Your task to perform on an android device: add a contact Image 0: 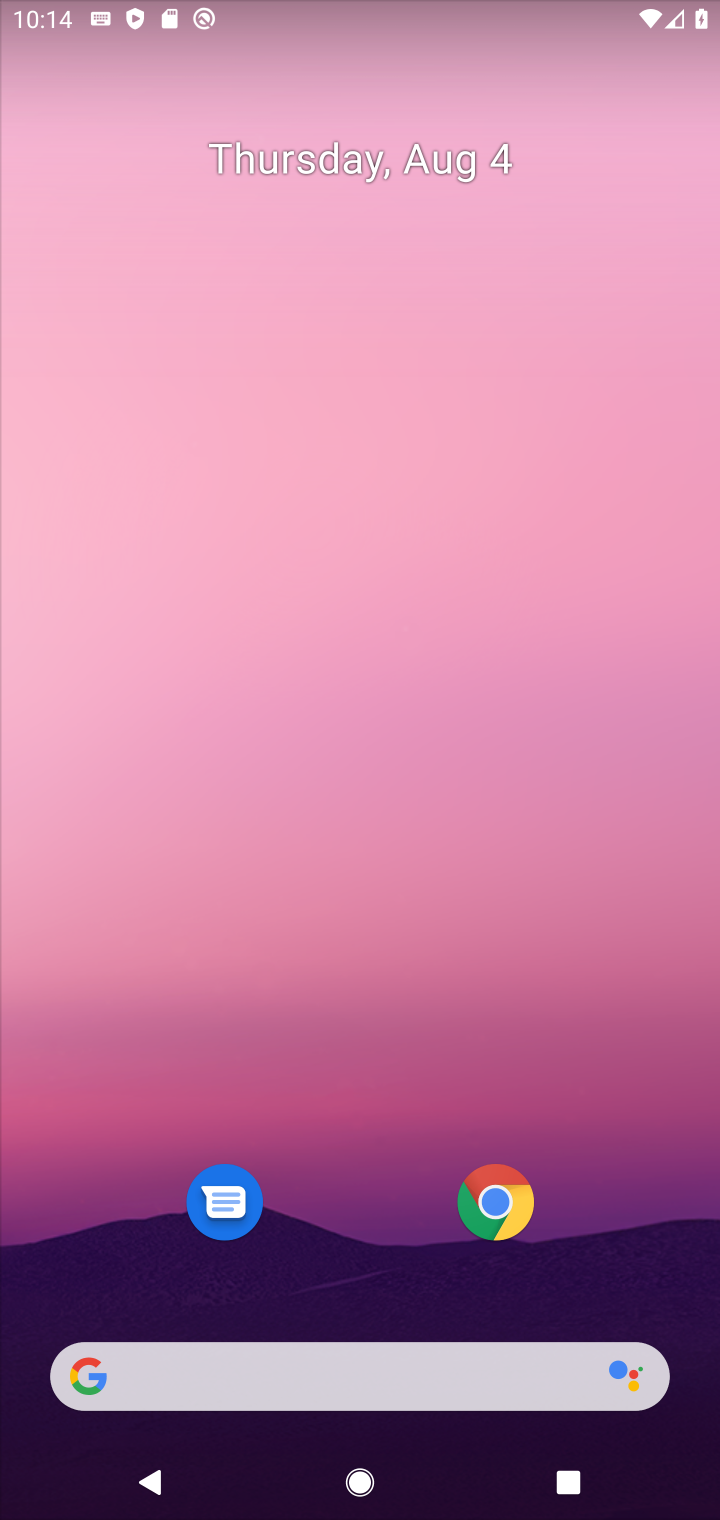
Step 0: press back button
Your task to perform on an android device: add a contact Image 1: 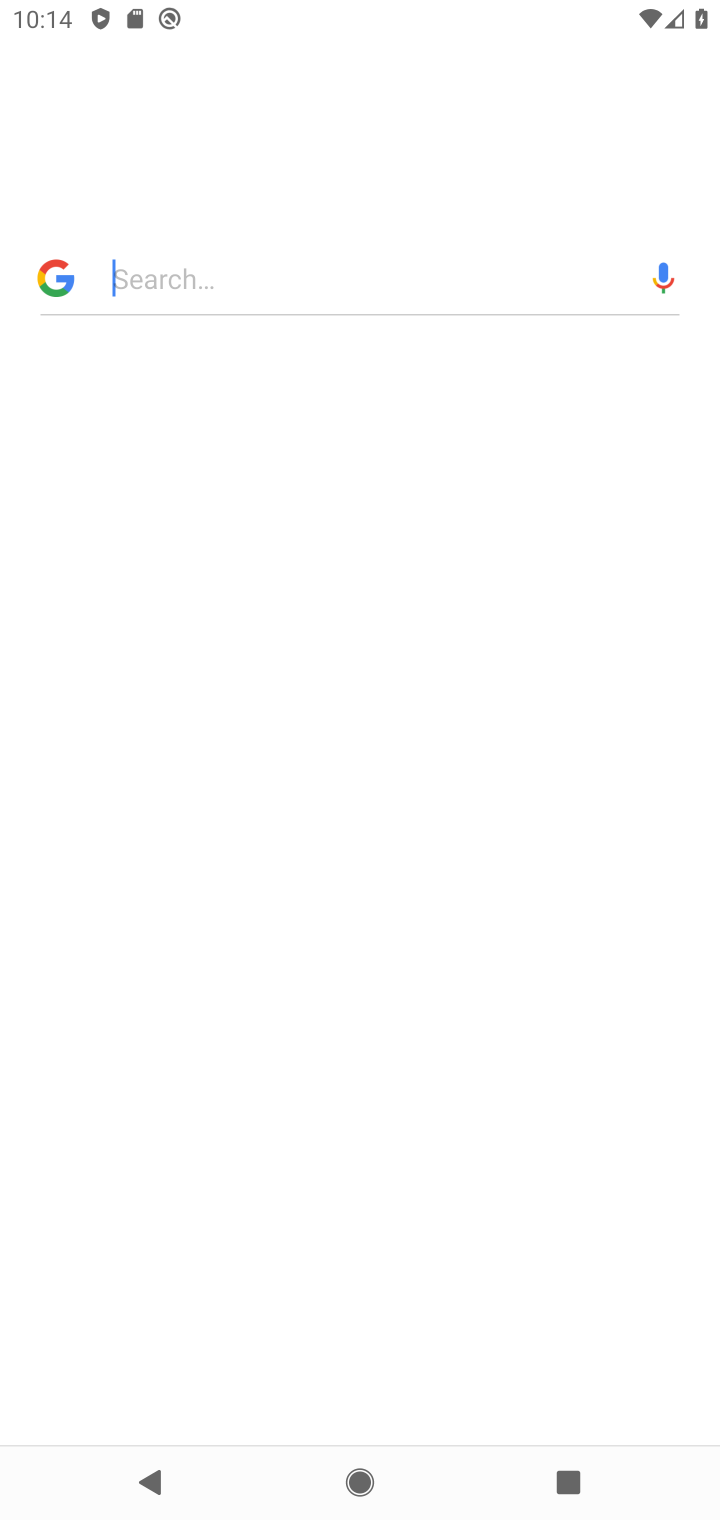
Step 1: click (535, 27)
Your task to perform on an android device: add a contact Image 2: 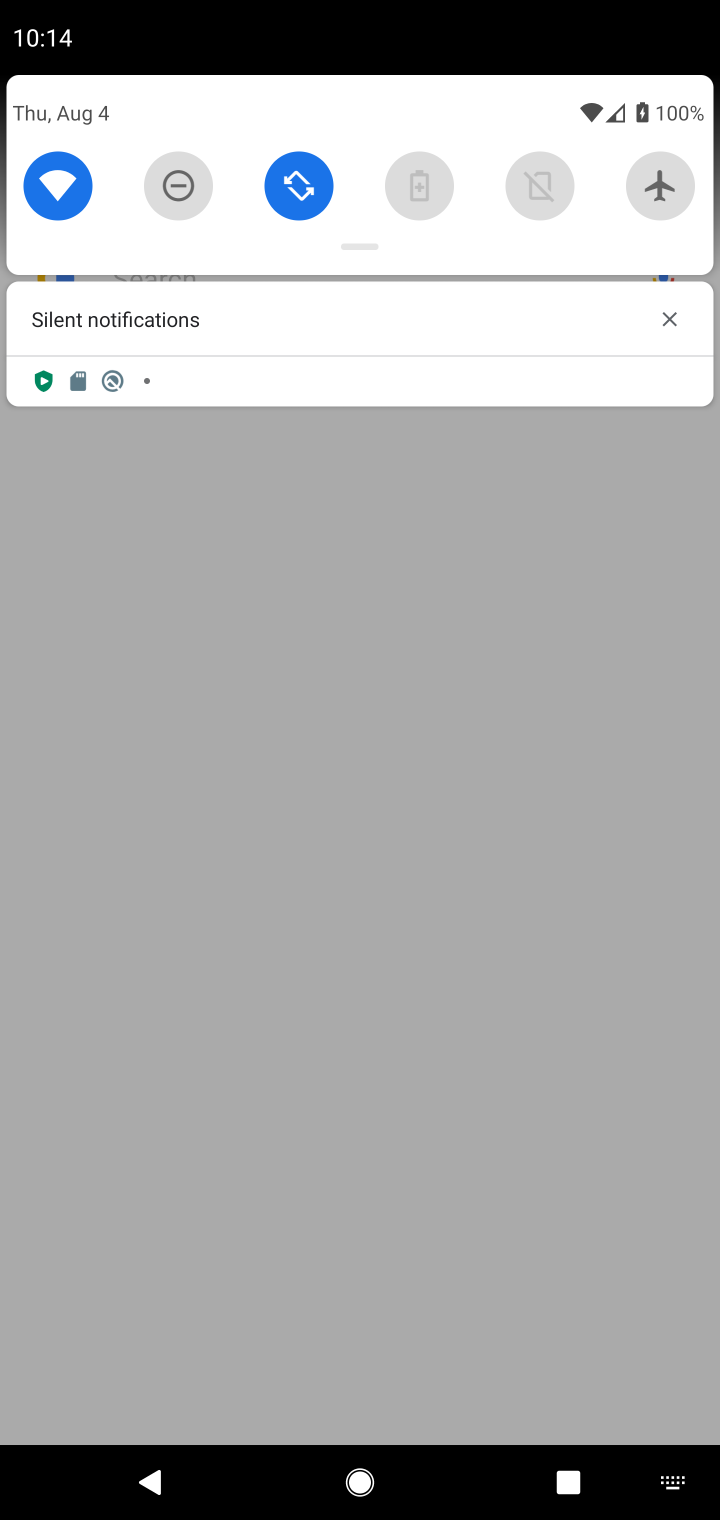
Step 2: press back button
Your task to perform on an android device: add a contact Image 3: 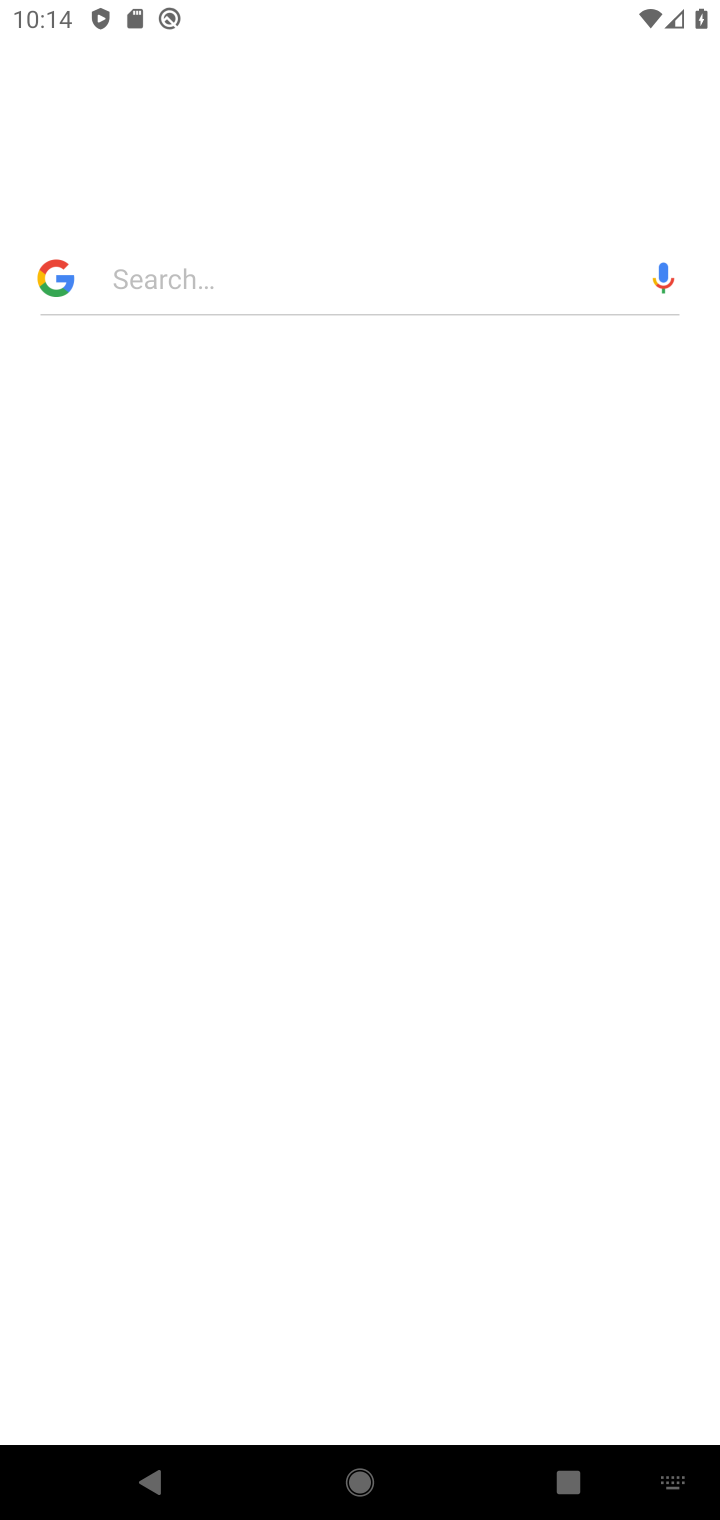
Step 3: press back button
Your task to perform on an android device: add a contact Image 4: 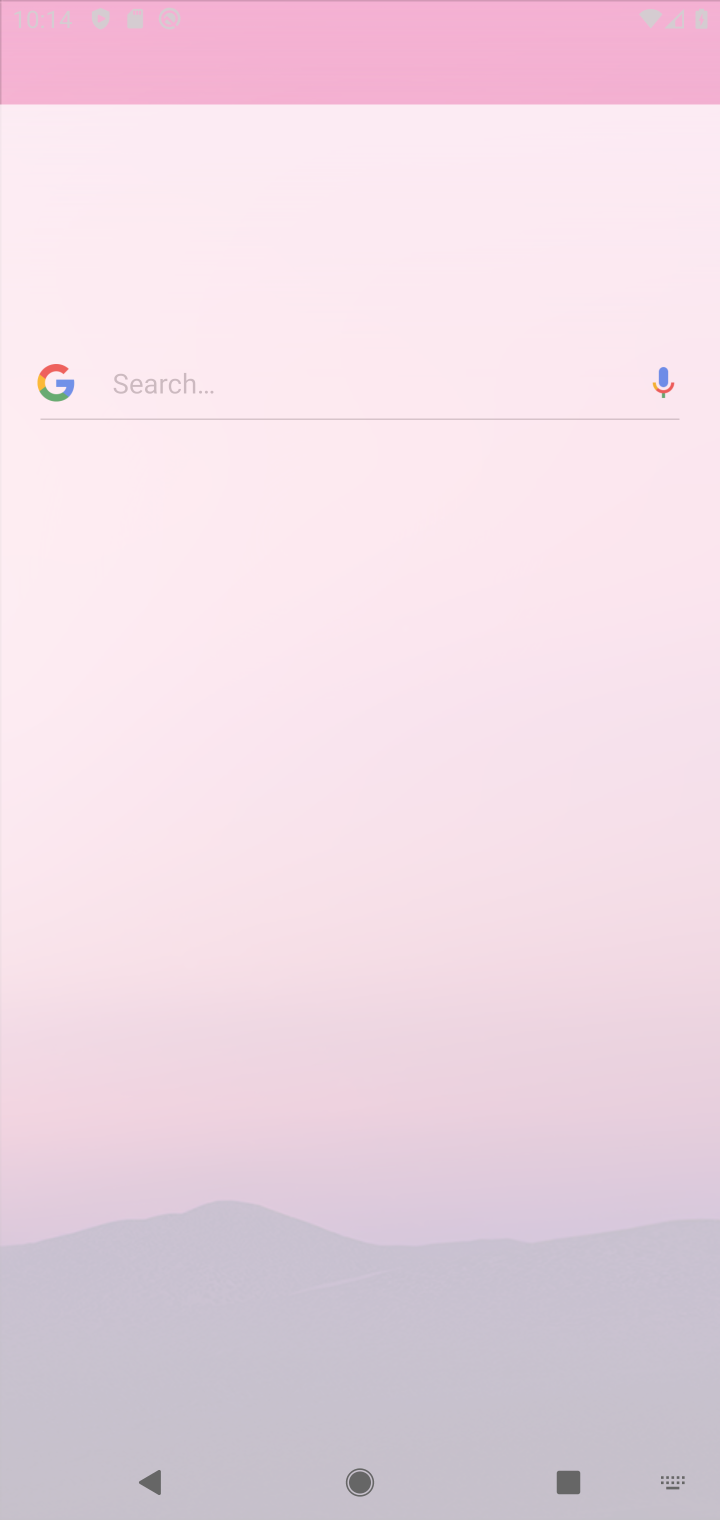
Step 4: press home button
Your task to perform on an android device: add a contact Image 5: 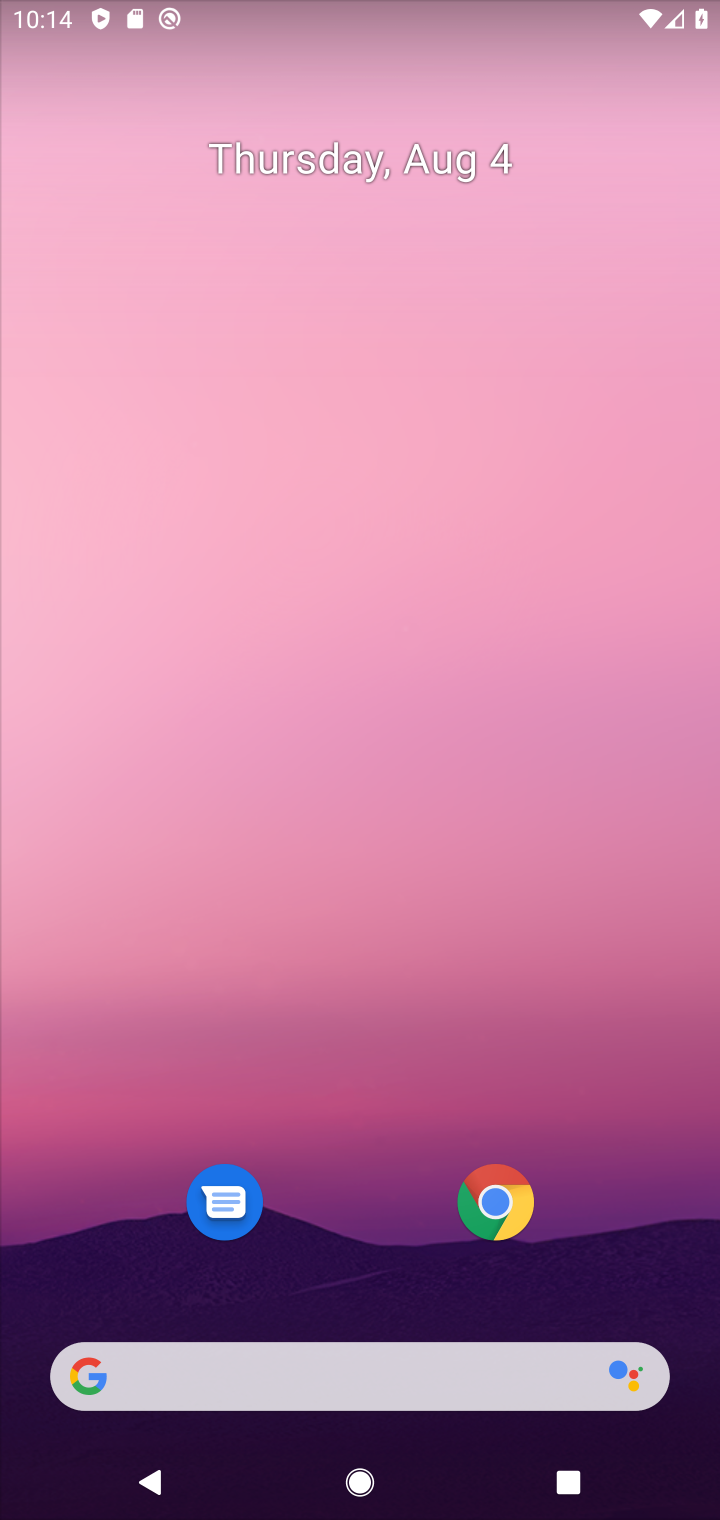
Step 5: click (547, 30)
Your task to perform on an android device: add a contact Image 6: 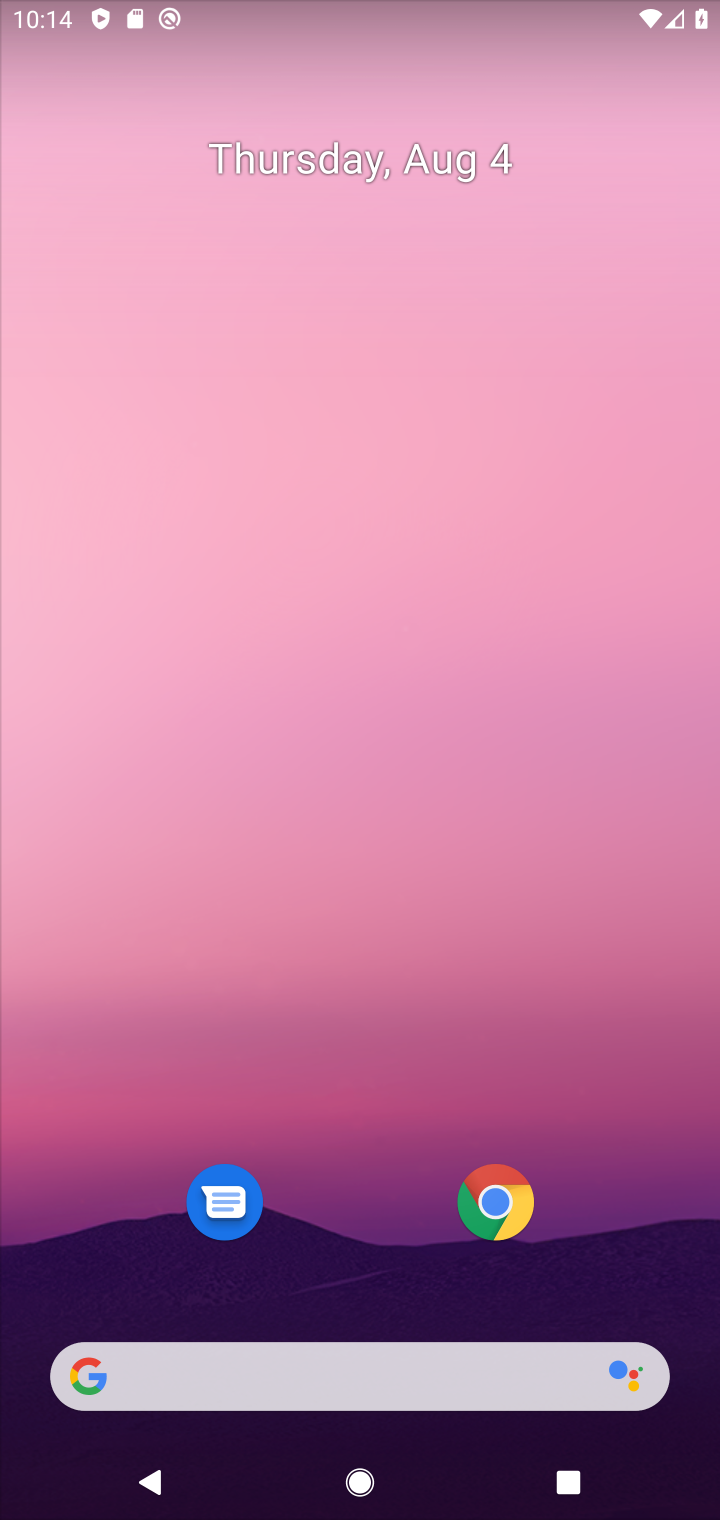
Step 6: drag from (424, 1113) to (566, 60)
Your task to perform on an android device: add a contact Image 7: 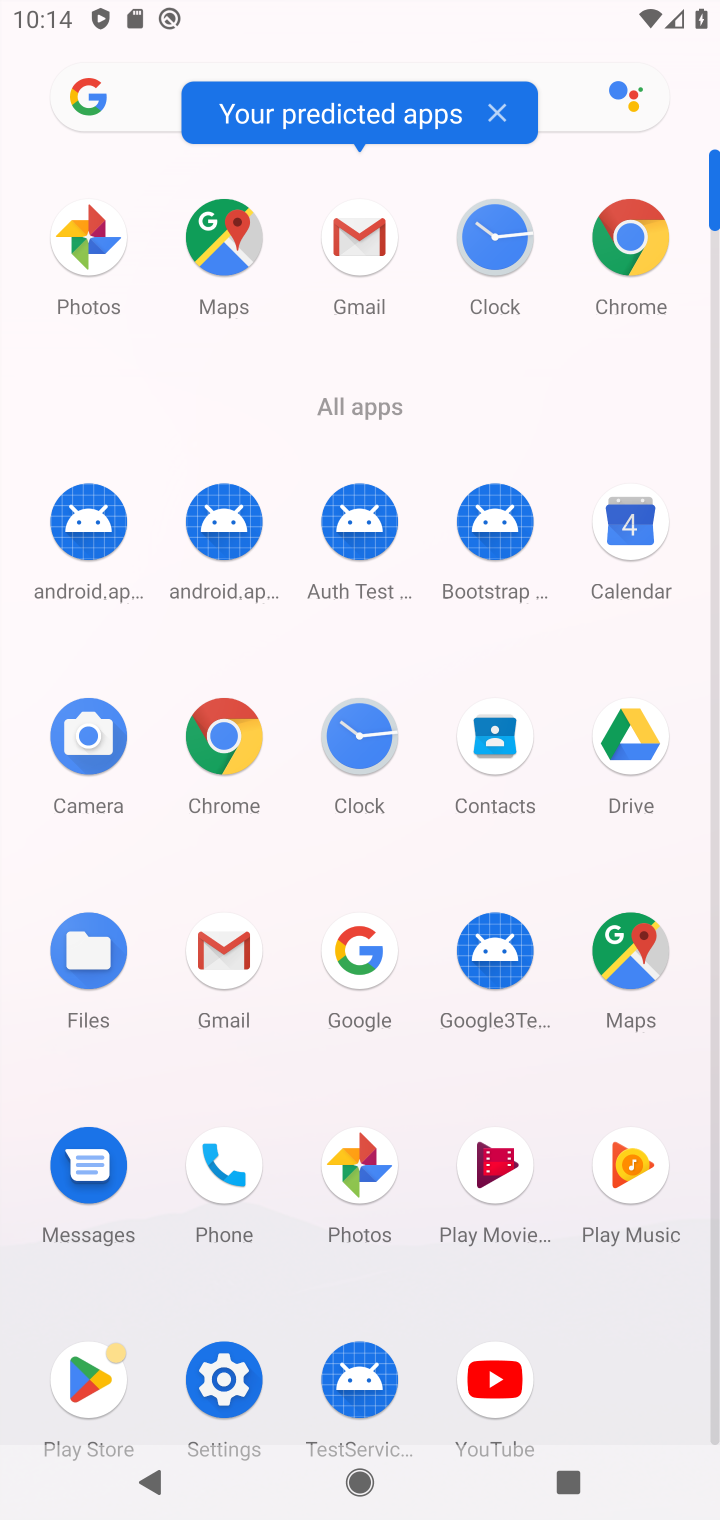
Step 7: click (496, 724)
Your task to perform on an android device: add a contact Image 8: 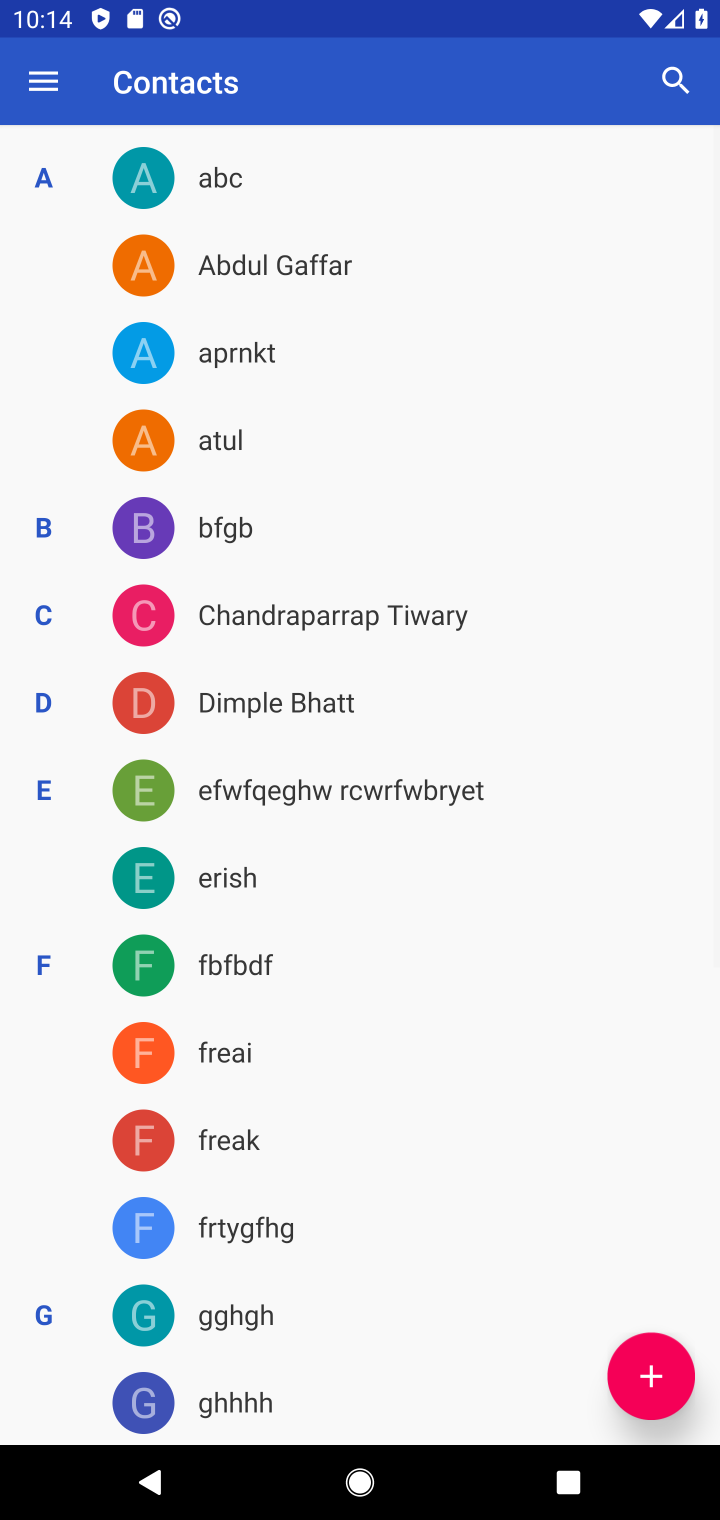
Step 8: click (652, 1384)
Your task to perform on an android device: add a contact Image 9: 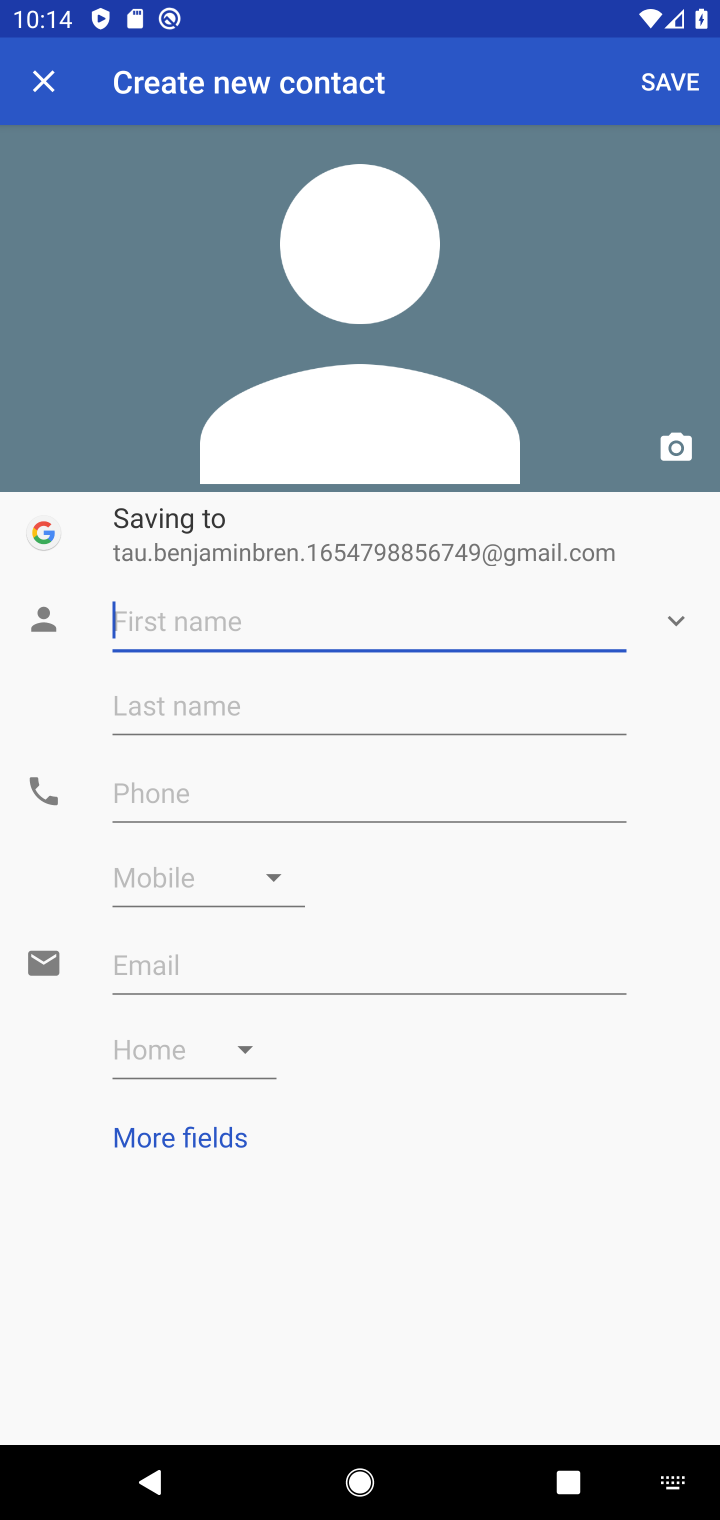
Step 9: type "hhvh"
Your task to perform on an android device: add a contact Image 10: 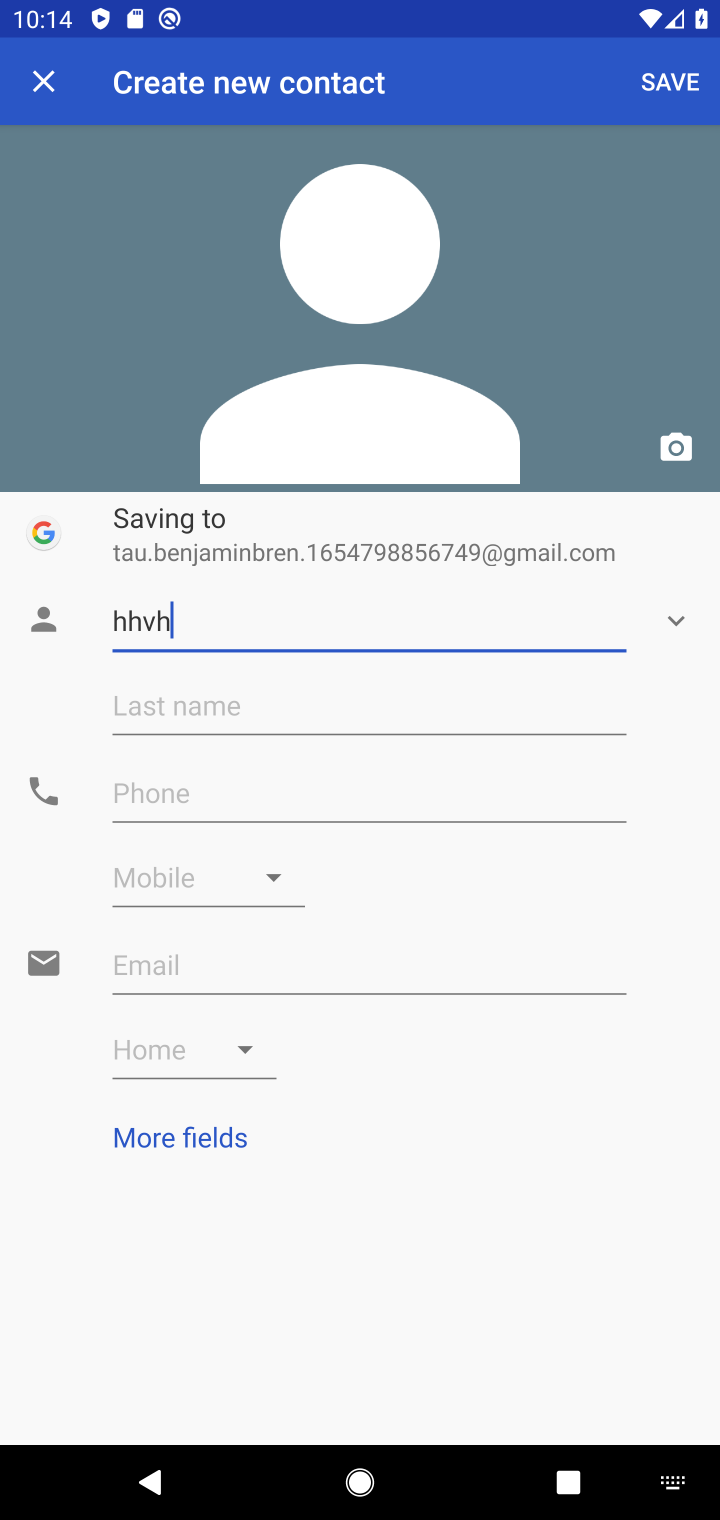
Step 10: click (254, 781)
Your task to perform on an android device: add a contact Image 11: 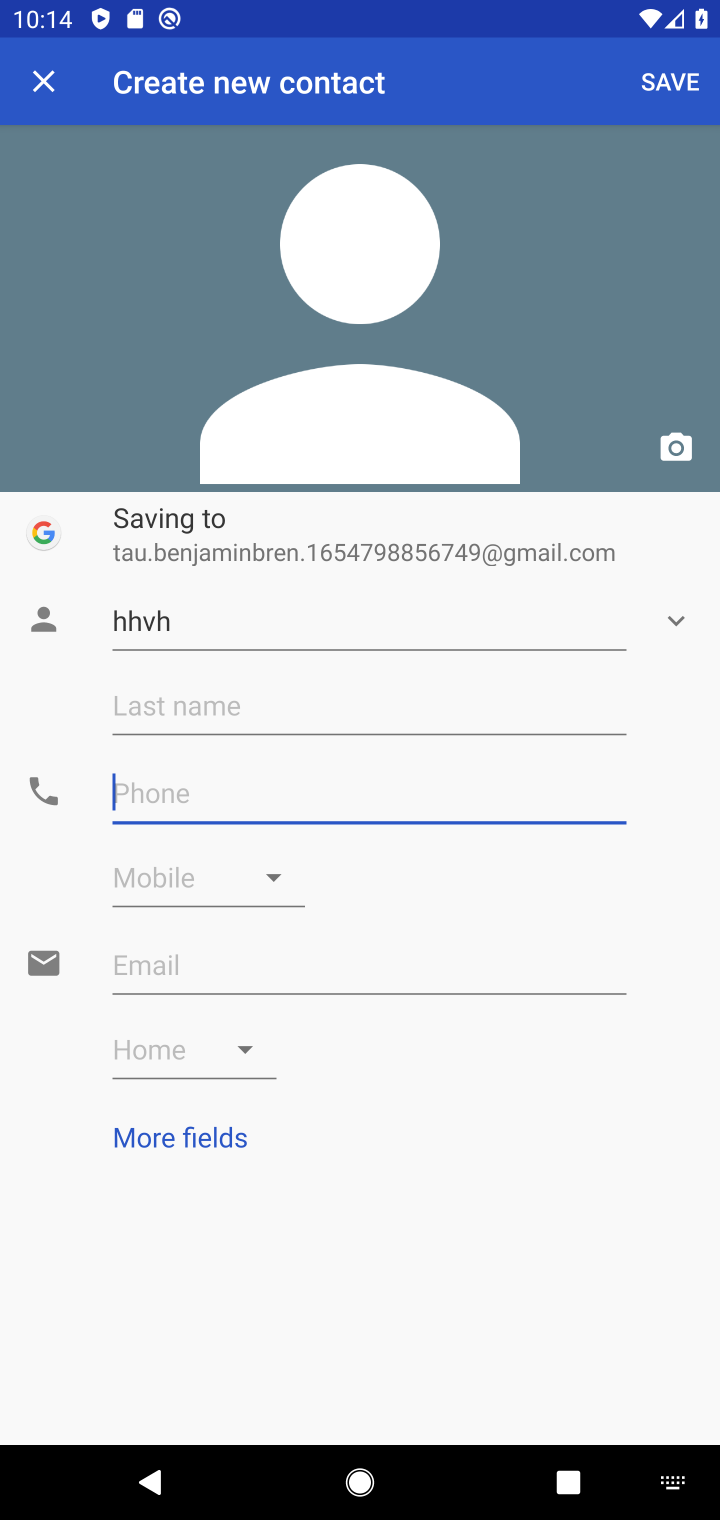
Step 11: type "6767"
Your task to perform on an android device: add a contact Image 12: 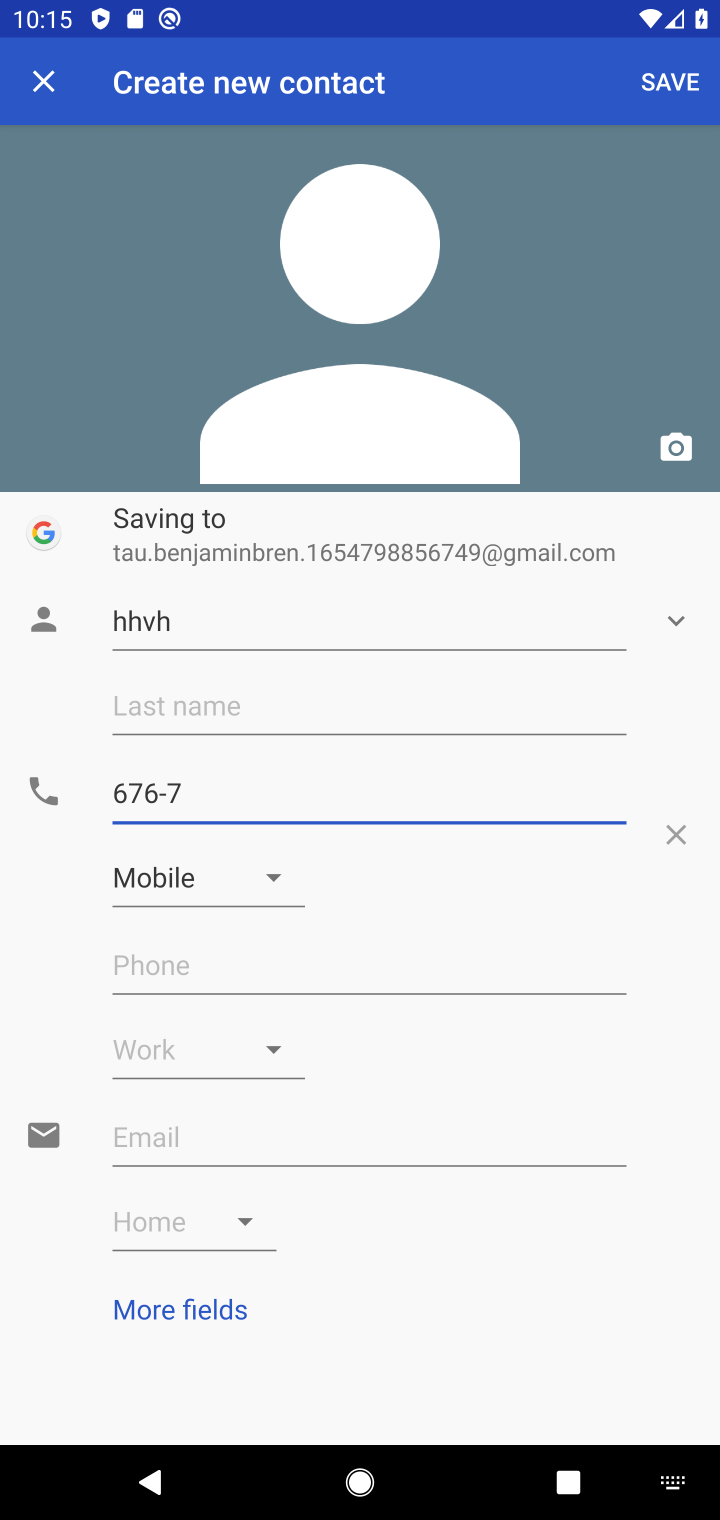
Step 12: click (682, 62)
Your task to perform on an android device: add a contact Image 13: 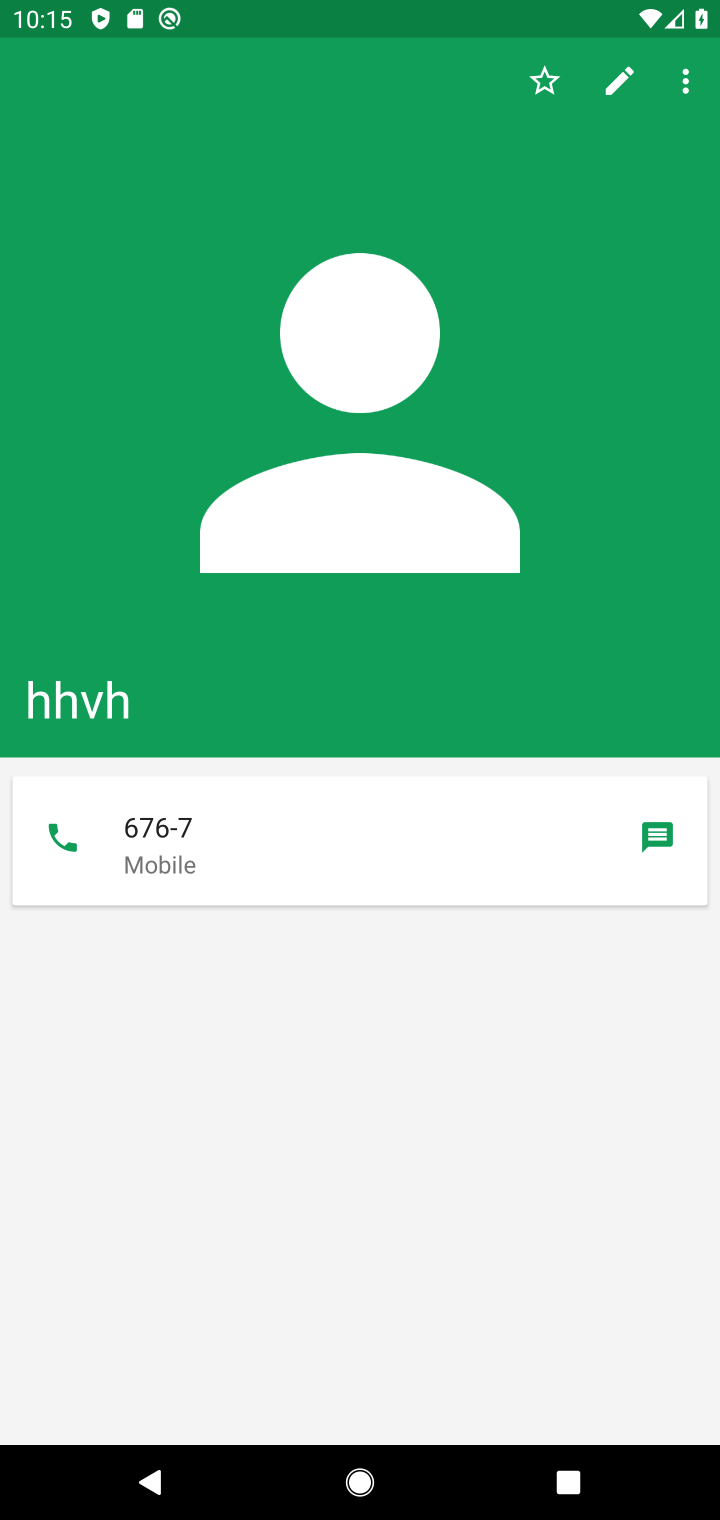
Step 13: task complete